Your task to perform on an android device: Open the web browser Image 0: 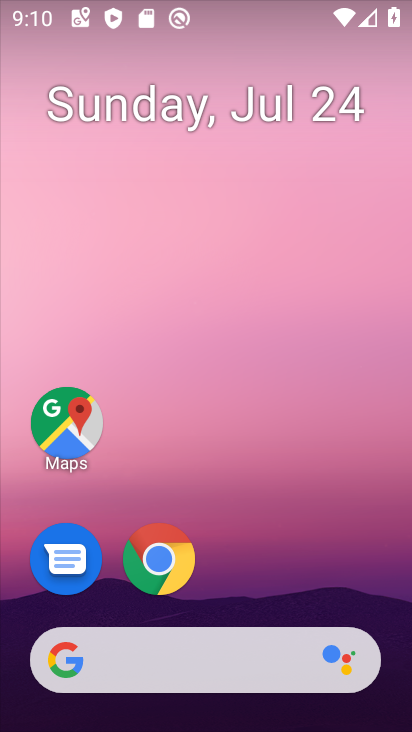
Step 0: click (162, 567)
Your task to perform on an android device: Open the web browser Image 1: 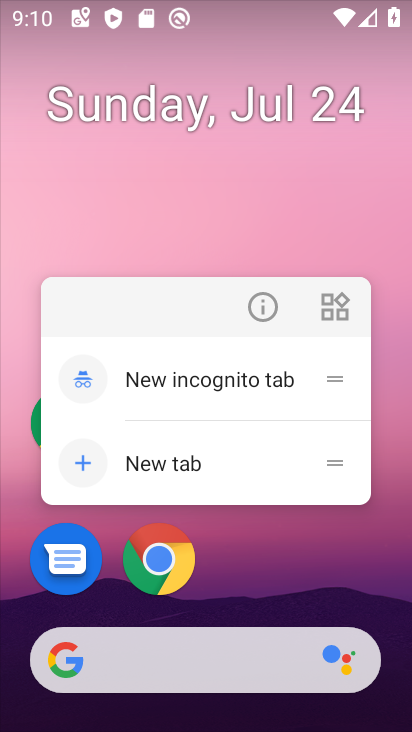
Step 1: click (165, 565)
Your task to perform on an android device: Open the web browser Image 2: 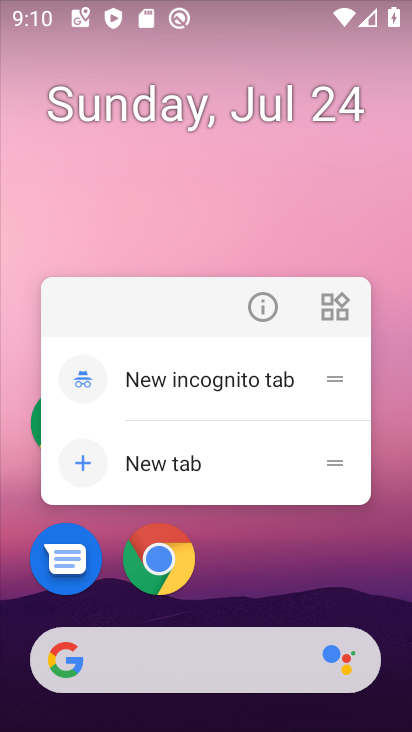
Step 2: click (163, 549)
Your task to perform on an android device: Open the web browser Image 3: 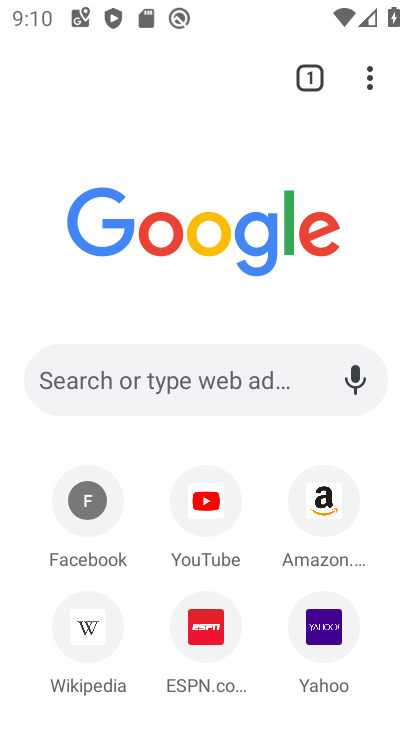
Step 3: task complete